Your task to perform on an android device: open app "ColorNote Notepad Notes" (install if not already installed) Image 0: 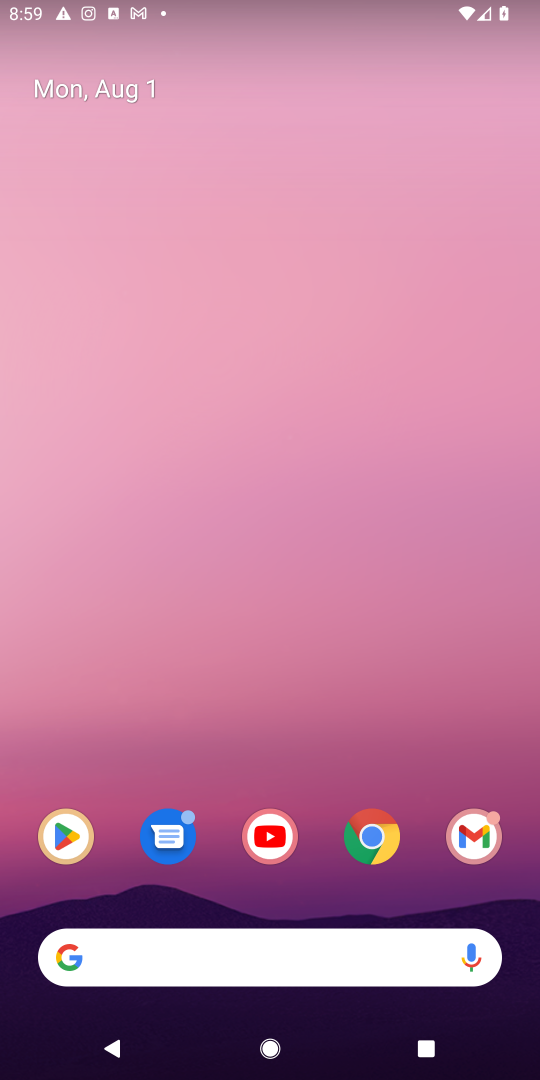
Step 0: press home button
Your task to perform on an android device: open app "ColorNote Notepad Notes" (install if not already installed) Image 1: 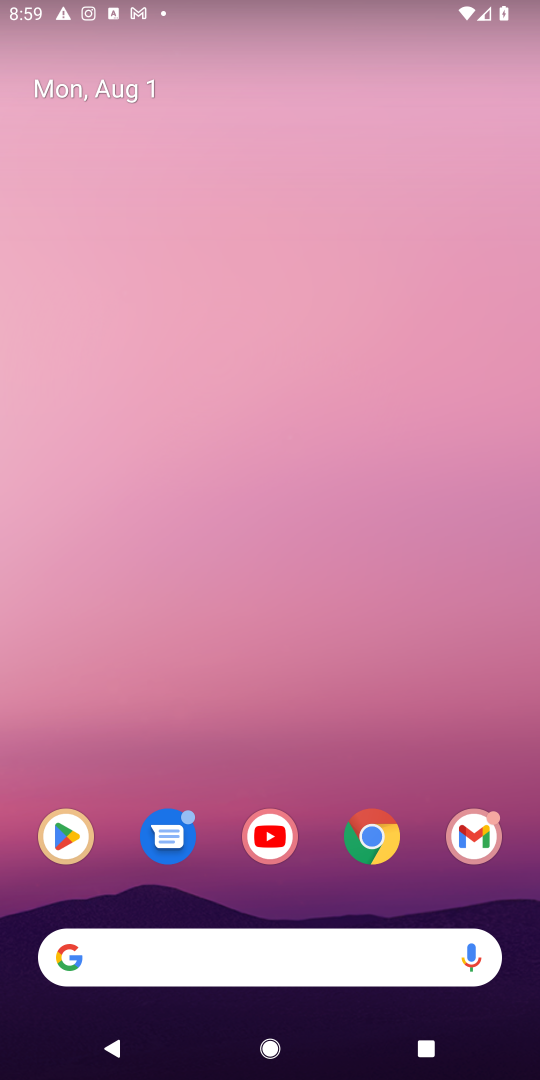
Step 1: click (70, 840)
Your task to perform on an android device: open app "ColorNote Notepad Notes" (install if not already installed) Image 2: 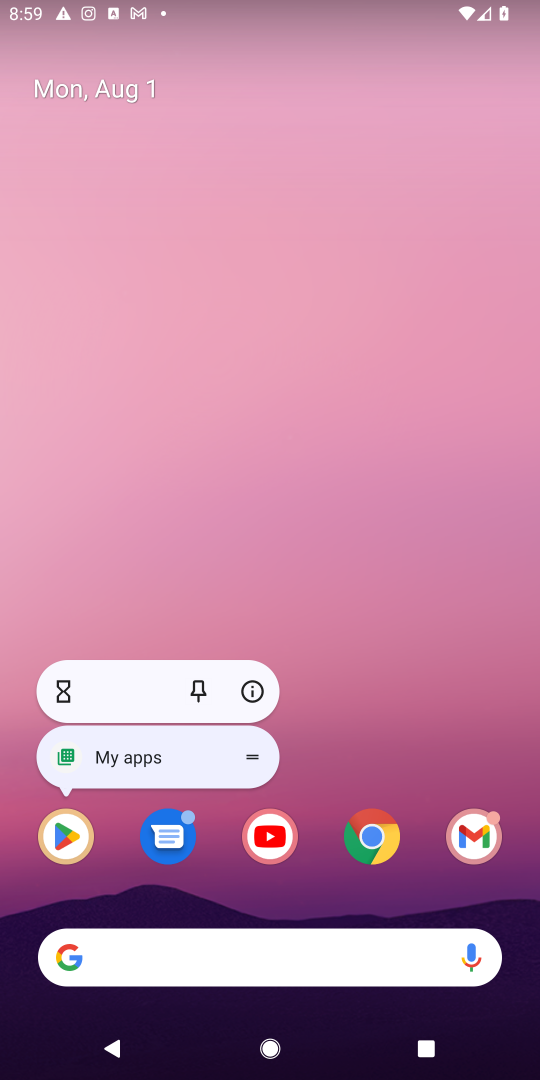
Step 2: click (68, 838)
Your task to perform on an android device: open app "ColorNote Notepad Notes" (install if not already installed) Image 3: 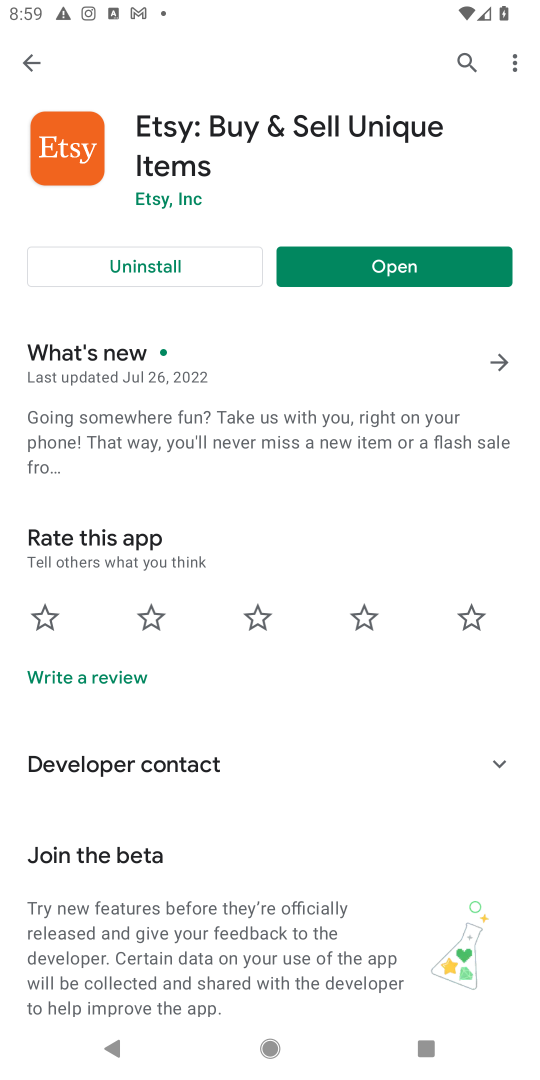
Step 3: click (468, 50)
Your task to perform on an android device: open app "ColorNote Notepad Notes" (install if not already installed) Image 4: 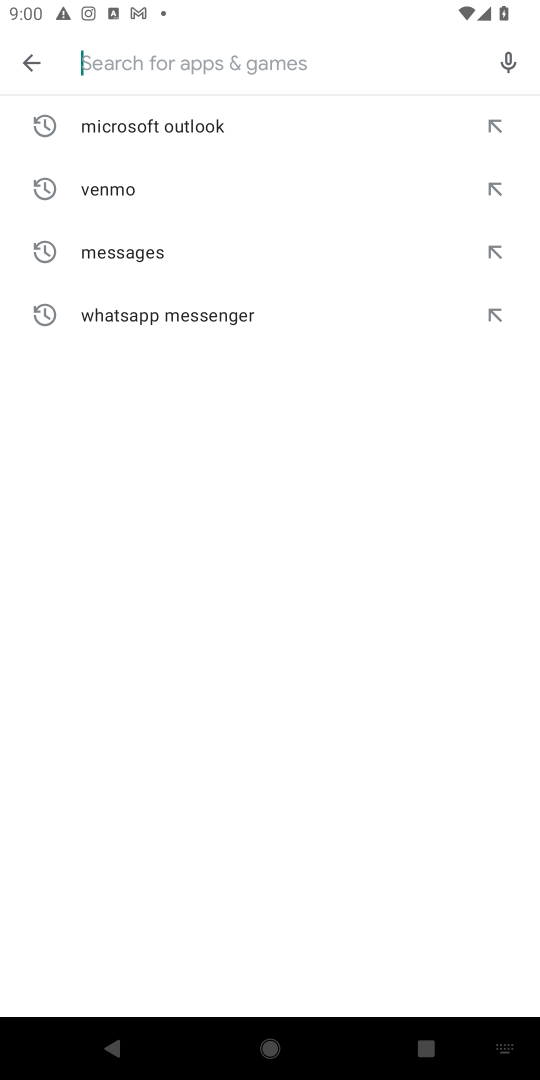
Step 4: type "ColorNote Notepad Notes"
Your task to perform on an android device: open app "ColorNote Notepad Notes" (install if not already installed) Image 5: 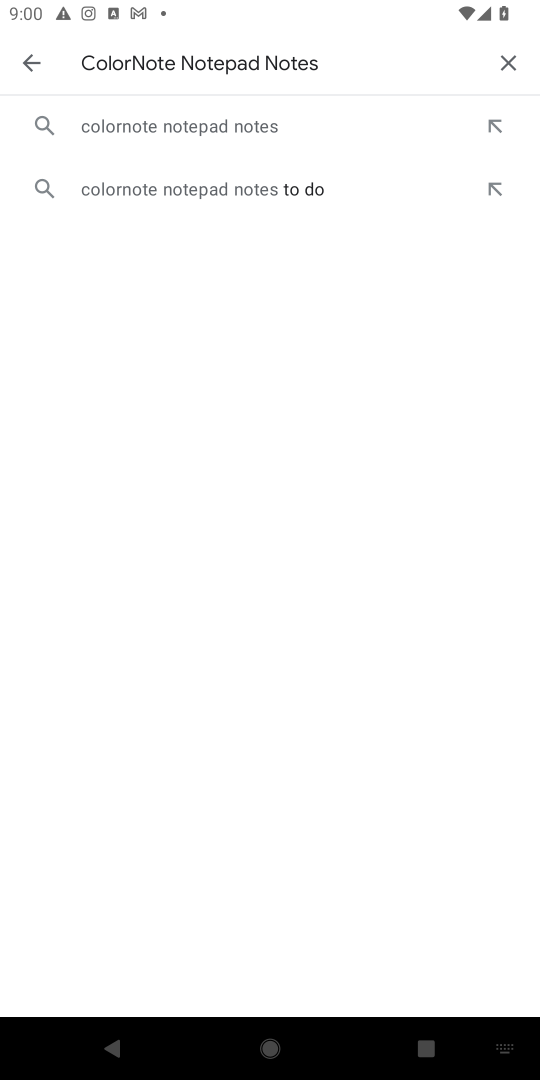
Step 5: click (245, 120)
Your task to perform on an android device: open app "ColorNote Notepad Notes" (install if not already installed) Image 6: 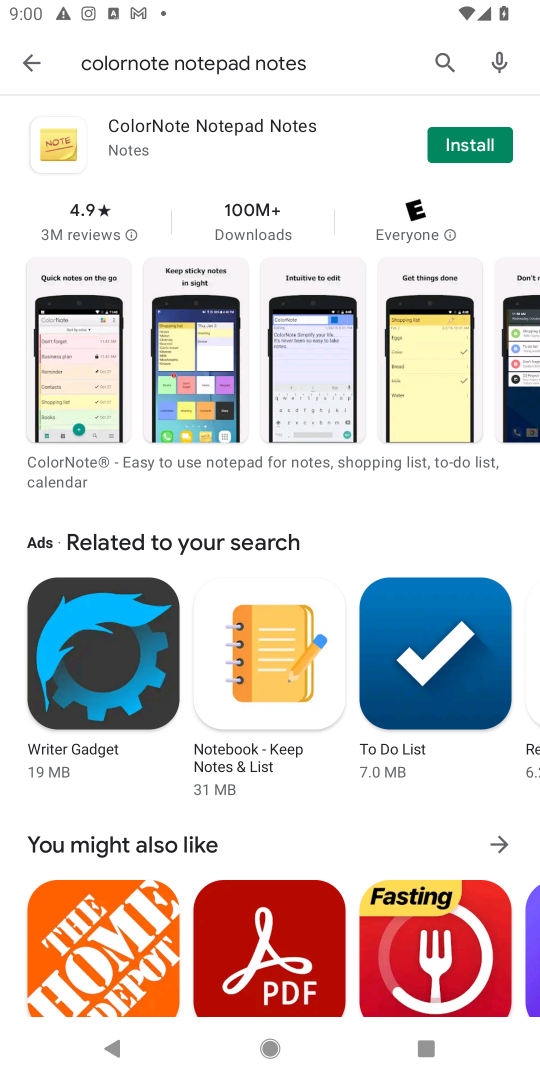
Step 6: click (493, 137)
Your task to perform on an android device: open app "ColorNote Notepad Notes" (install if not already installed) Image 7: 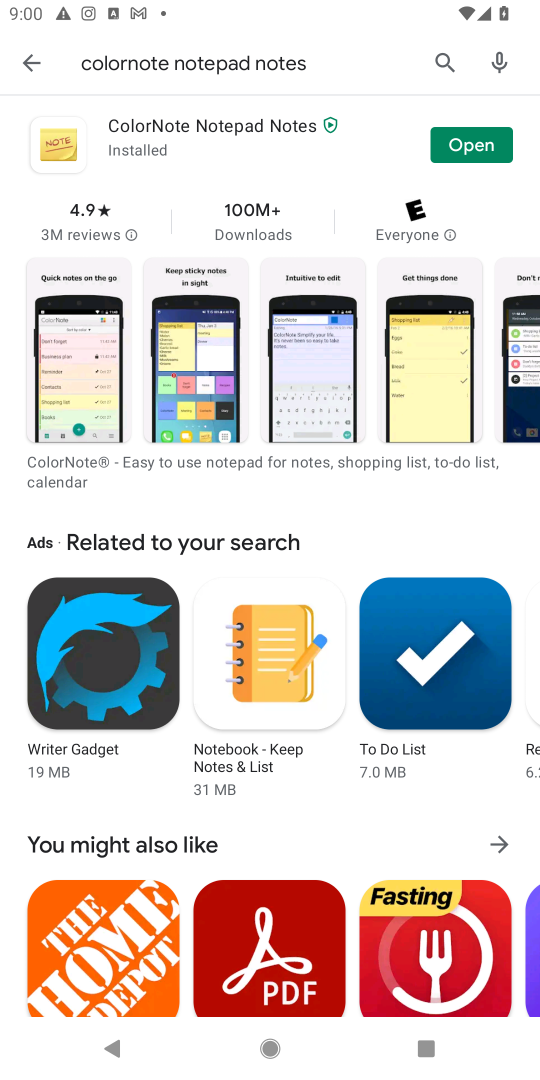
Step 7: click (466, 148)
Your task to perform on an android device: open app "ColorNote Notepad Notes" (install if not already installed) Image 8: 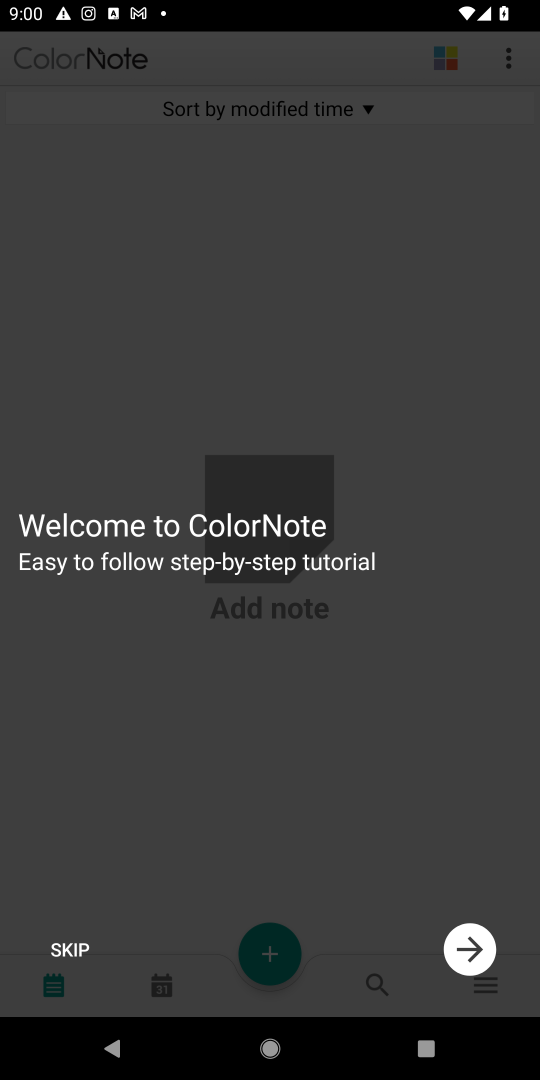
Step 8: task complete